Your task to perform on an android device: open app "Grab" (install if not already installed) Image 0: 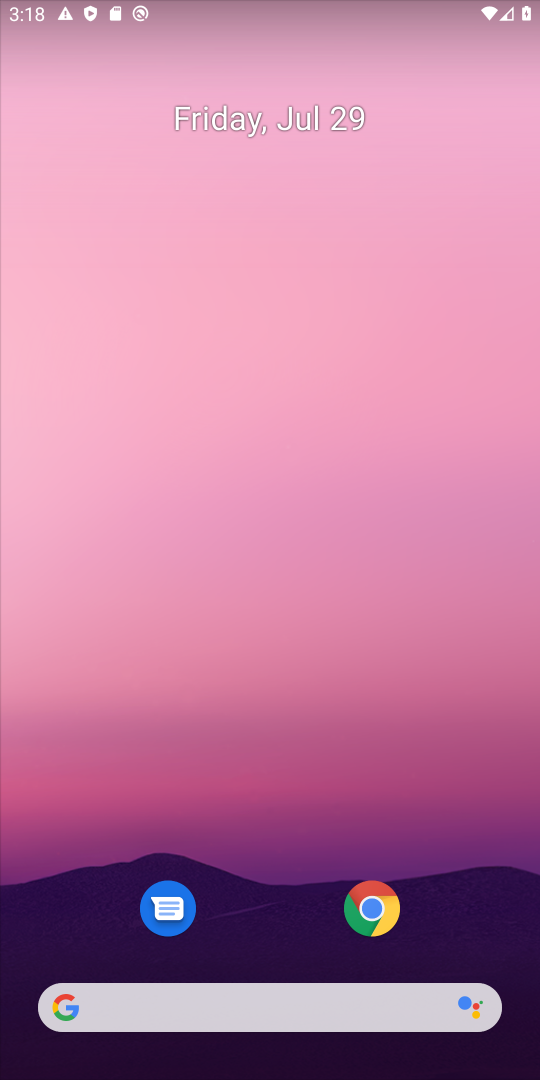
Step 0: drag from (197, 724) to (89, 51)
Your task to perform on an android device: open app "Grab" (install if not already installed) Image 1: 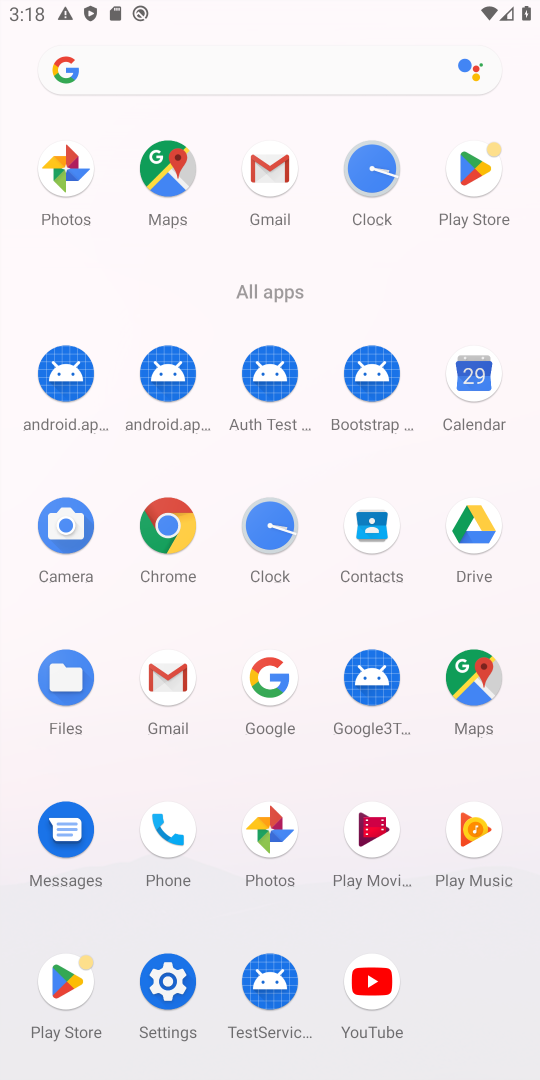
Step 1: click (470, 179)
Your task to perform on an android device: open app "Grab" (install if not already installed) Image 2: 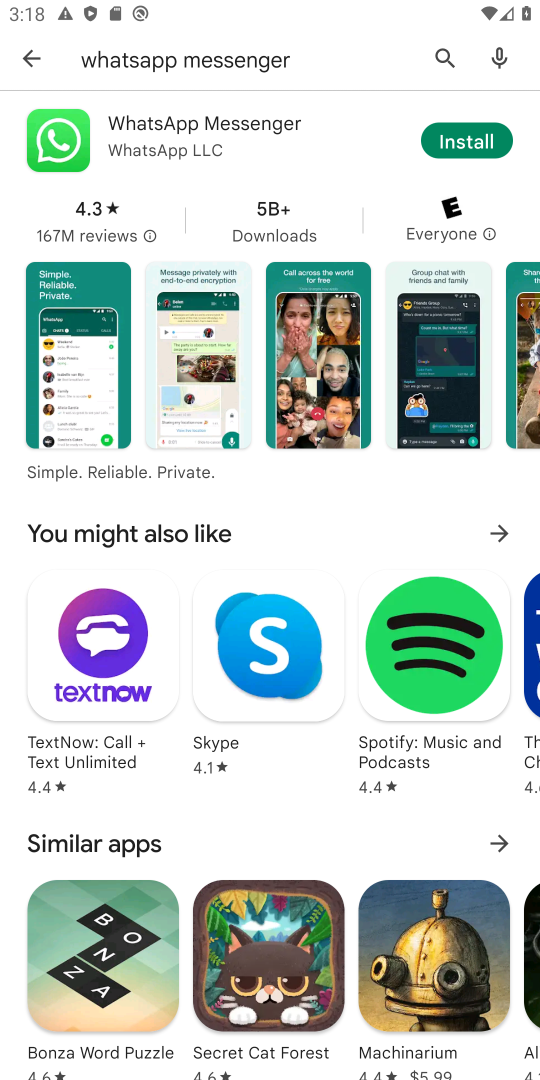
Step 2: click (456, 56)
Your task to perform on an android device: open app "Grab" (install if not already installed) Image 3: 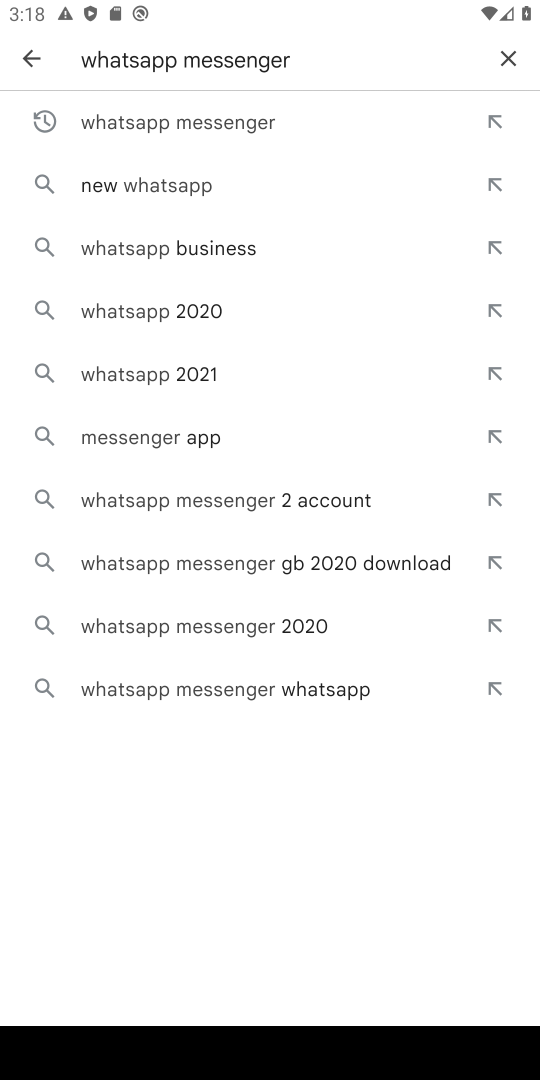
Step 3: click (505, 62)
Your task to perform on an android device: open app "Grab" (install if not already installed) Image 4: 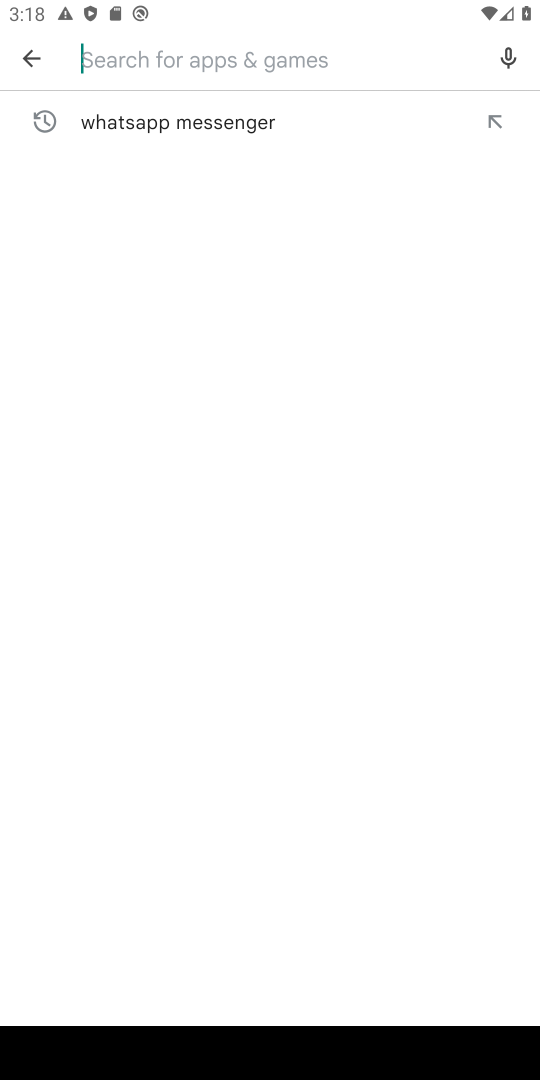
Step 4: type "Grab"
Your task to perform on an android device: open app "Grab" (install if not already installed) Image 5: 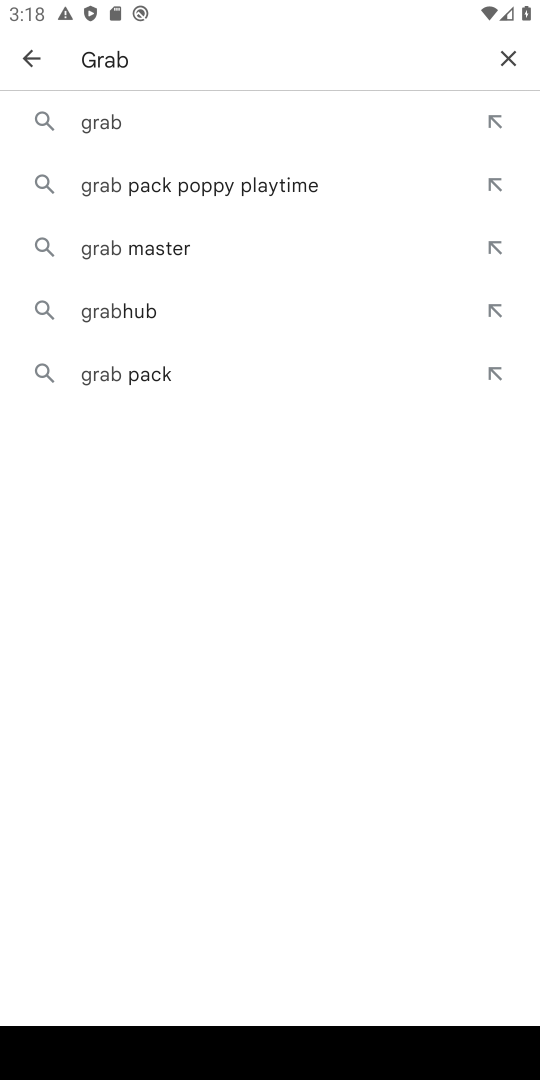
Step 5: click (117, 120)
Your task to perform on an android device: open app "Grab" (install if not already installed) Image 6: 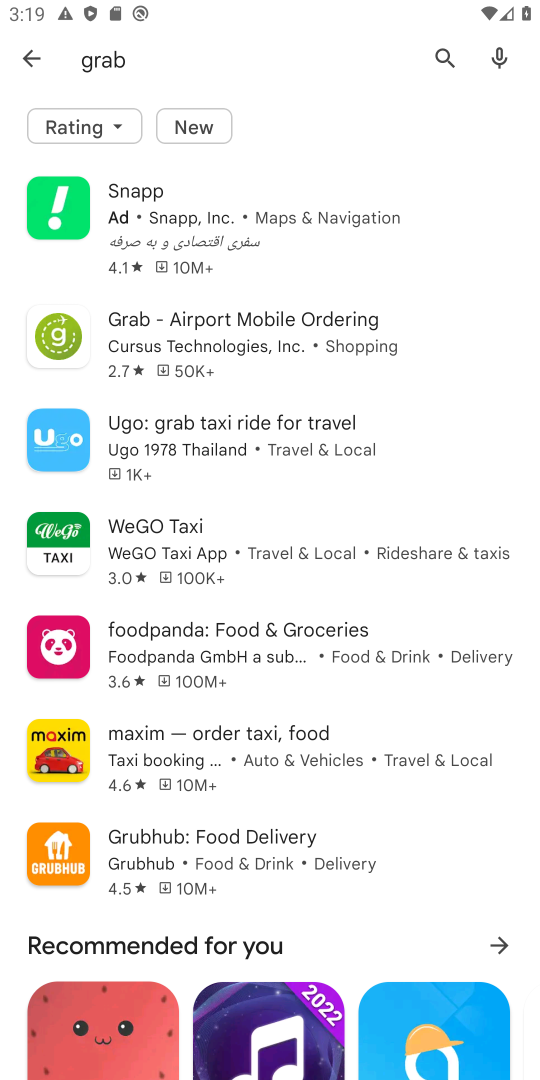
Step 6: click (228, 348)
Your task to perform on an android device: open app "Grab" (install if not already installed) Image 7: 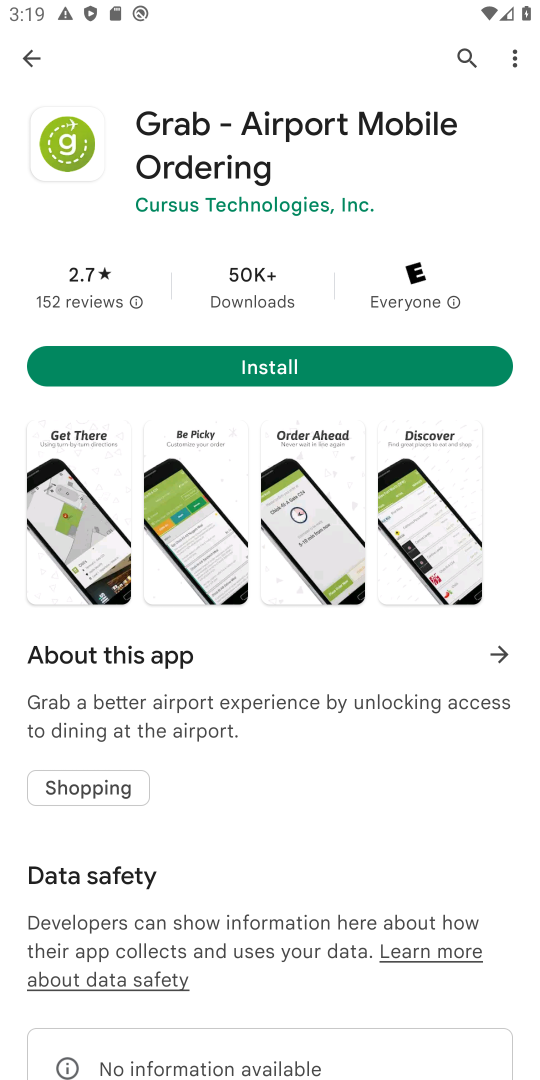
Step 7: click (293, 381)
Your task to perform on an android device: open app "Grab" (install if not already installed) Image 8: 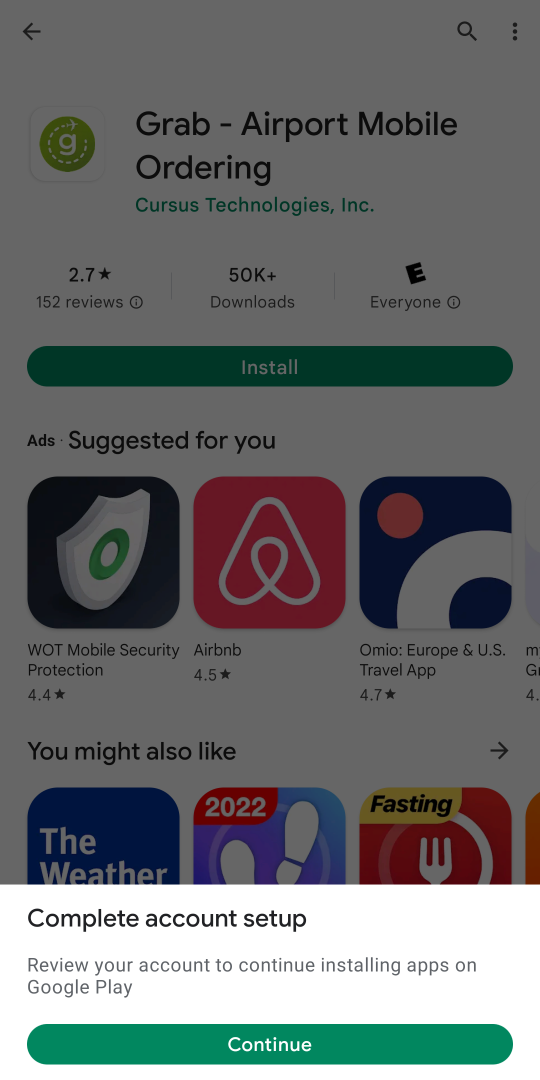
Step 8: click (276, 1058)
Your task to perform on an android device: open app "Grab" (install if not already installed) Image 9: 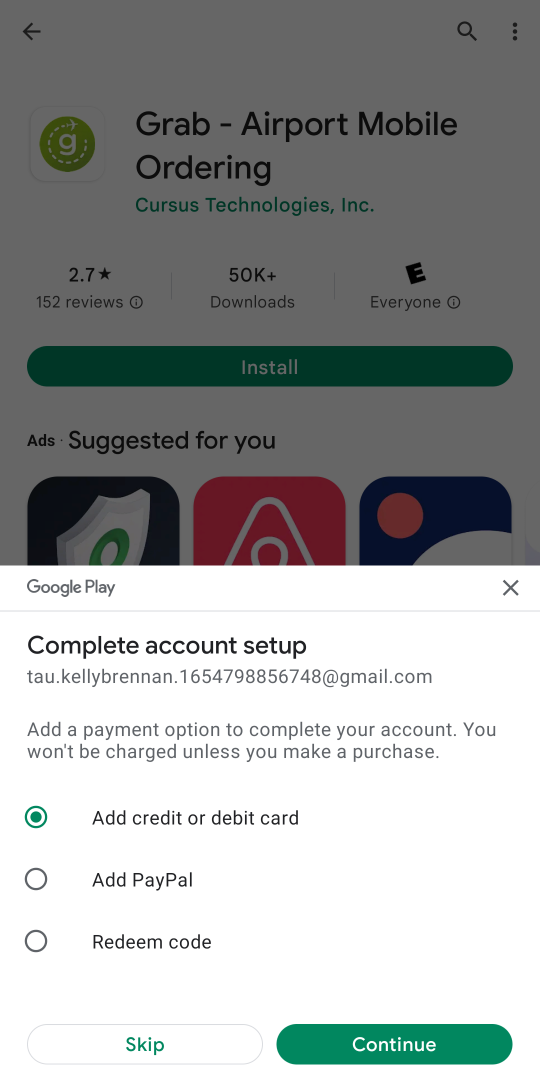
Step 9: click (171, 1037)
Your task to perform on an android device: open app "Grab" (install if not already installed) Image 10: 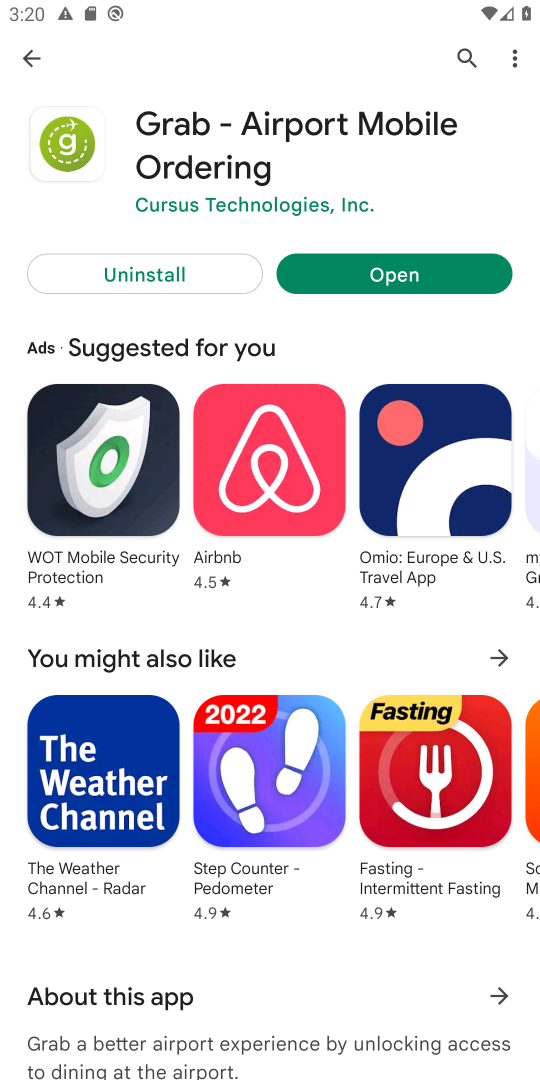
Step 10: click (360, 270)
Your task to perform on an android device: open app "Grab" (install if not already installed) Image 11: 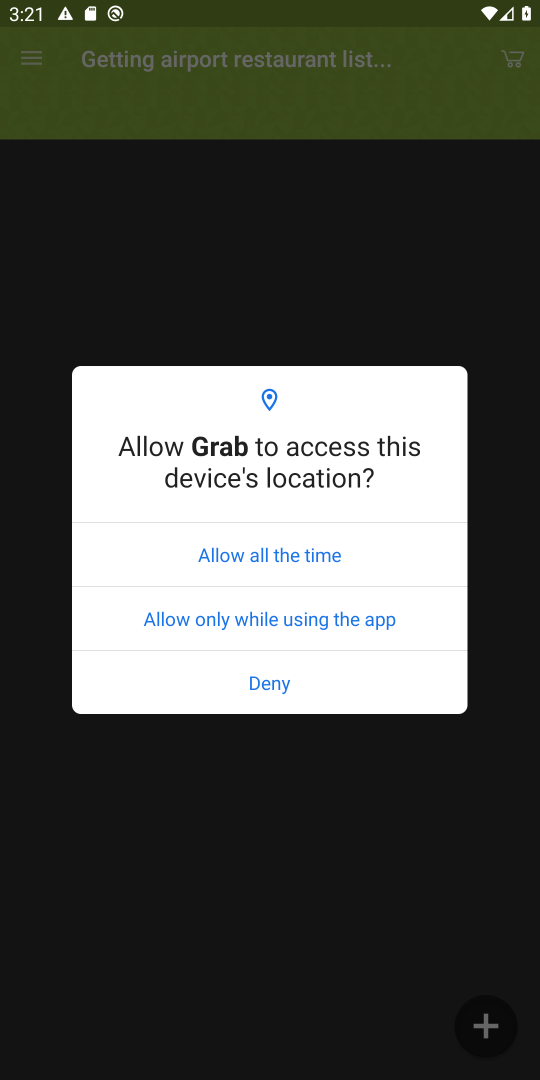
Step 11: task complete